Your task to perform on an android device: Clear all items from cart on amazon.com. Search for logitech g pro on amazon.com, select the first entry, add it to the cart, then select checkout. Image 0: 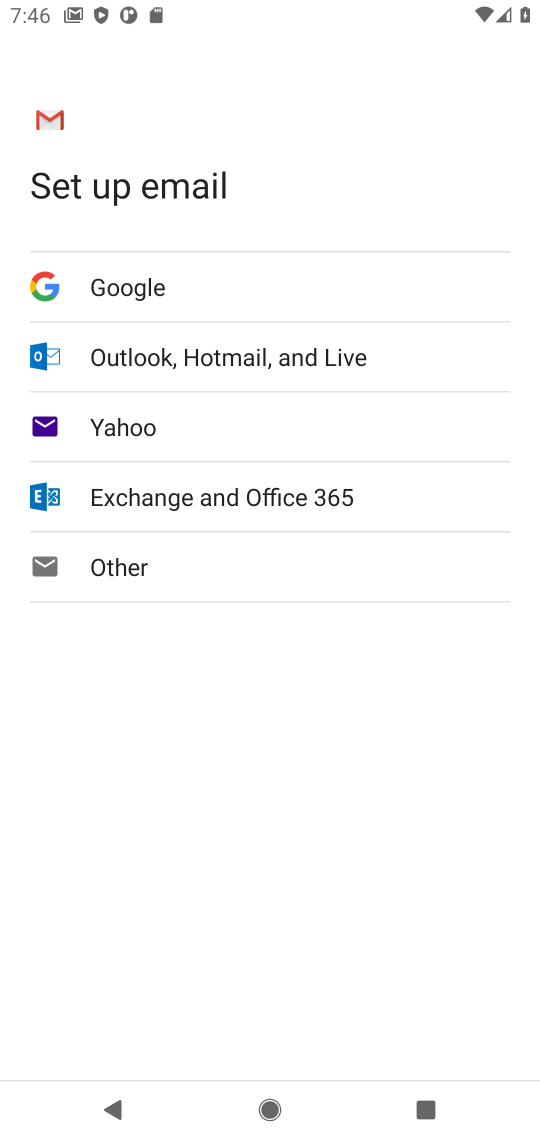
Step 0: press home button
Your task to perform on an android device: Clear all items from cart on amazon.com. Search for logitech g pro on amazon.com, select the first entry, add it to the cart, then select checkout. Image 1: 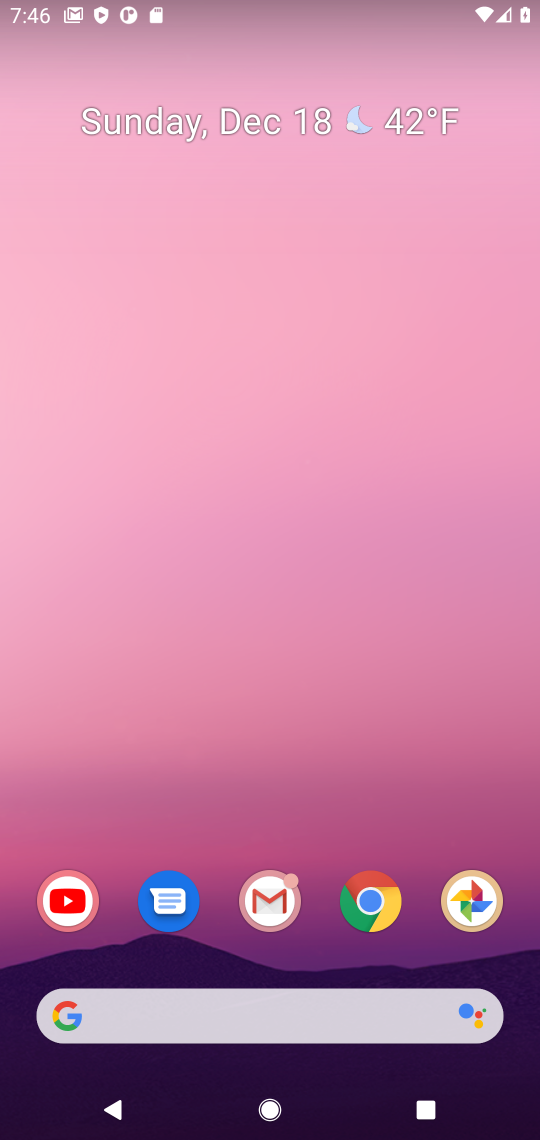
Step 1: click (381, 911)
Your task to perform on an android device: Clear all items from cart on amazon.com. Search for logitech g pro on amazon.com, select the first entry, add it to the cart, then select checkout. Image 2: 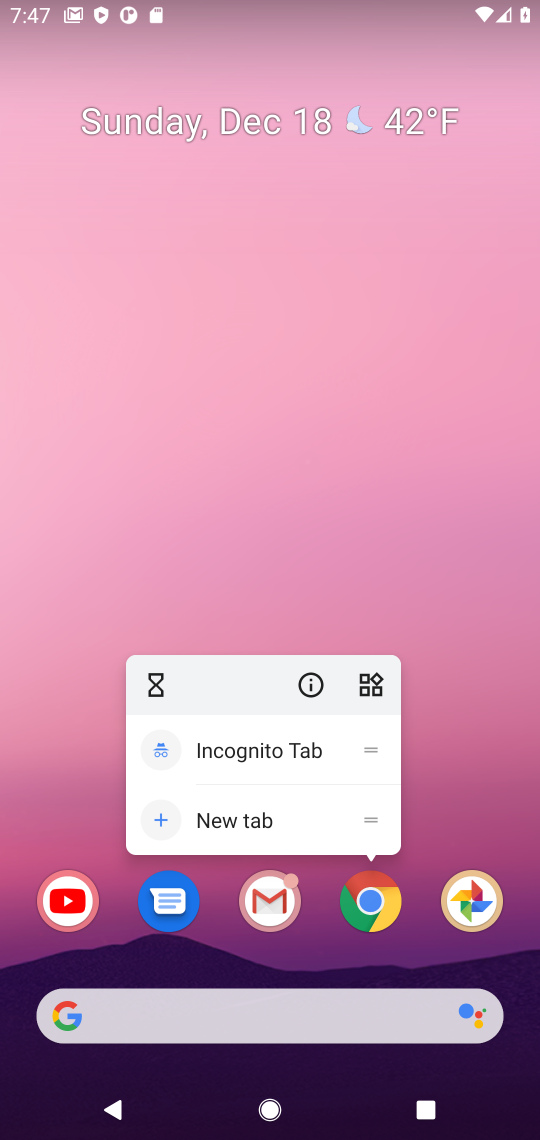
Step 2: click (383, 895)
Your task to perform on an android device: Clear all items from cart on amazon.com. Search for logitech g pro on amazon.com, select the first entry, add it to the cart, then select checkout. Image 3: 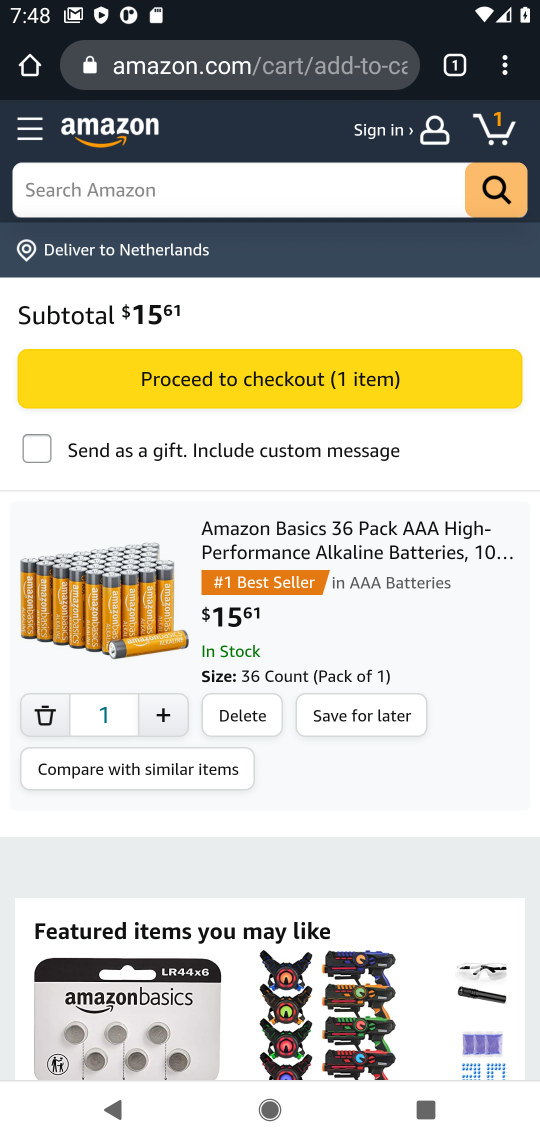
Step 3: task complete